Your task to perform on an android device: Play the last video I watched on Youtube Image 0: 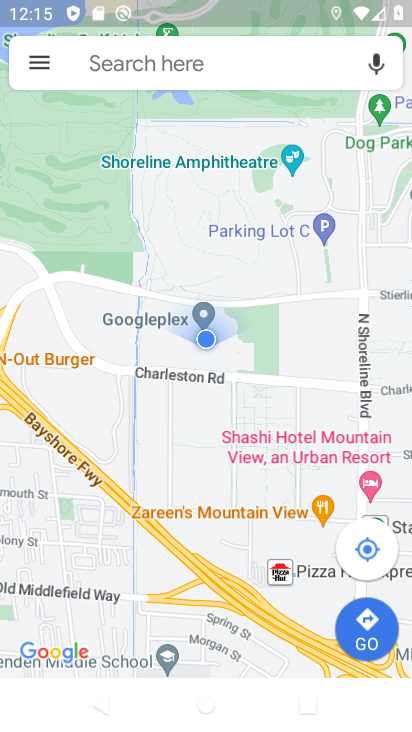
Step 0: press back button
Your task to perform on an android device: Play the last video I watched on Youtube Image 1: 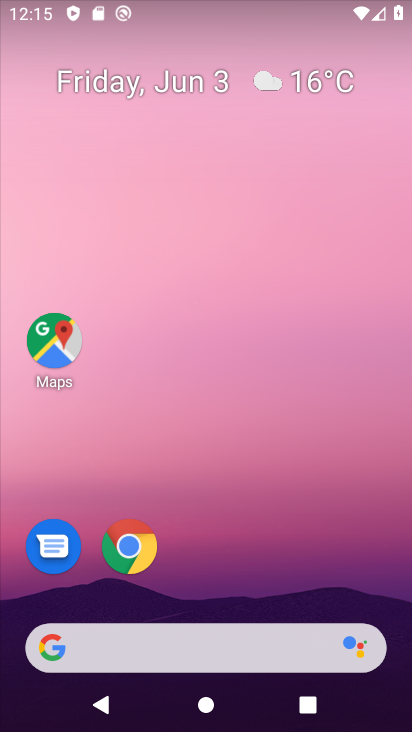
Step 1: drag from (258, 517) to (308, 55)
Your task to perform on an android device: Play the last video I watched on Youtube Image 2: 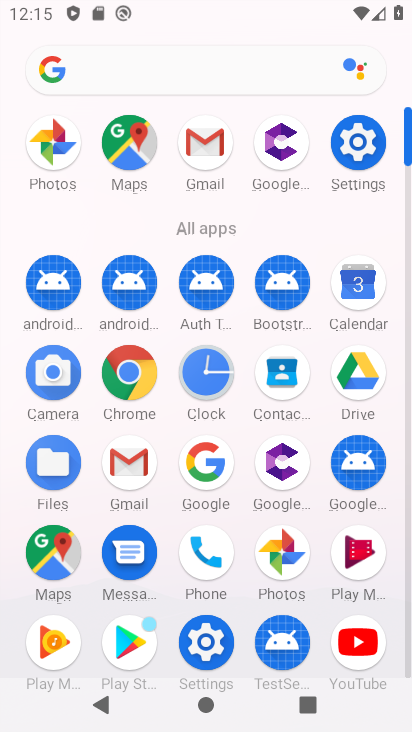
Step 2: click (344, 642)
Your task to perform on an android device: Play the last video I watched on Youtube Image 3: 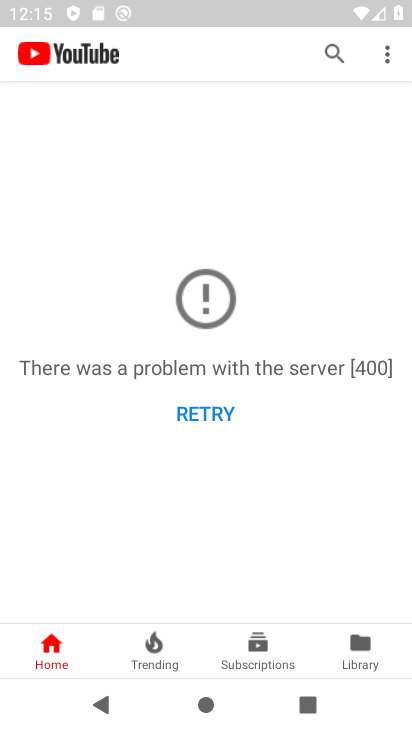
Step 3: click (365, 650)
Your task to perform on an android device: Play the last video I watched on Youtube Image 4: 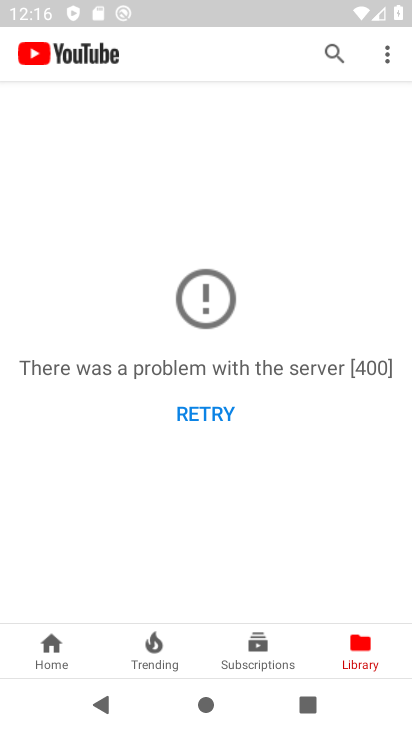
Step 4: task complete